Your task to perform on an android device: Open the calendar app, open the side menu, and click the "Day" option Image 0: 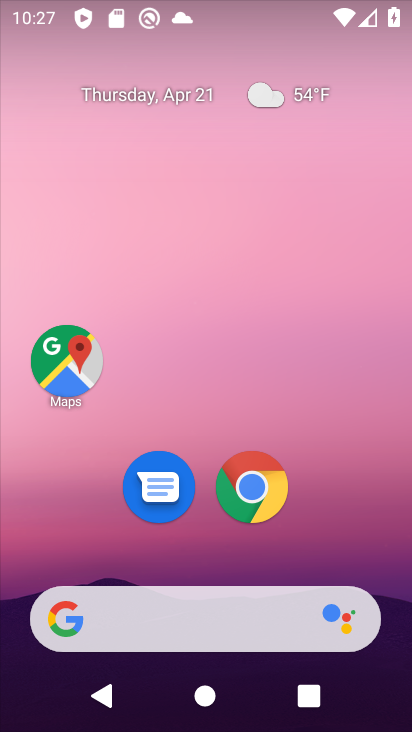
Step 0: drag from (388, 527) to (370, 181)
Your task to perform on an android device: Open the calendar app, open the side menu, and click the "Day" option Image 1: 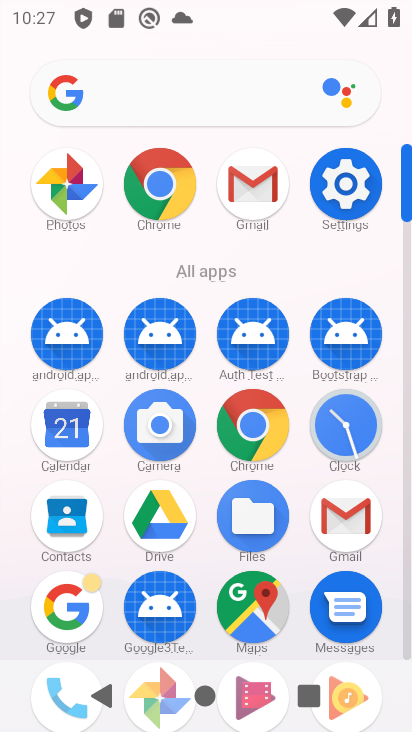
Step 1: click (74, 434)
Your task to perform on an android device: Open the calendar app, open the side menu, and click the "Day" option Image 2: 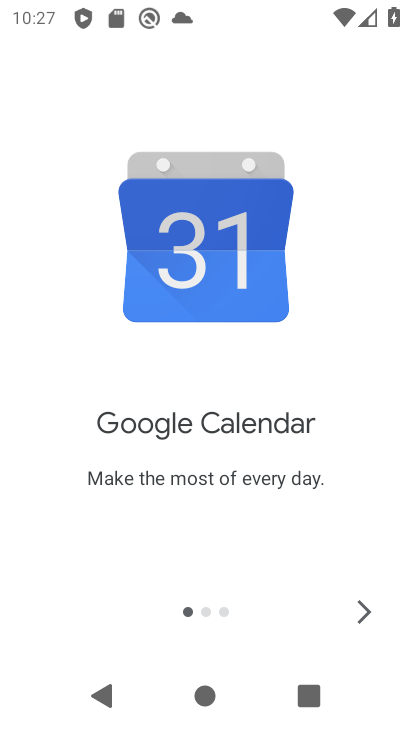
Step 2: click (370, 615)
Your task to perform on an android device: Open the calendar app, open the side menu, and click the "Day" option Image 3: 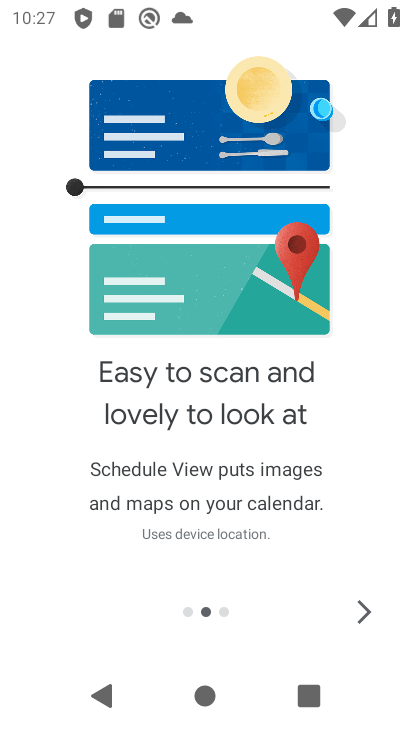
Step 3: click (369, 614)
Your task to perform on an android device: Open the calendar app, open the side menu, and click the "Day" option Image 4: 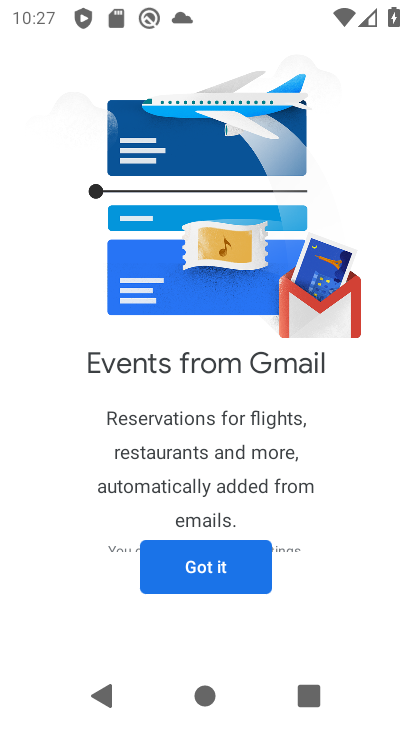
Step 4: click (208, 563)
Your task to perform on an android device: Open the calendar app, open the side menu, and click the "Day" option Image 5: 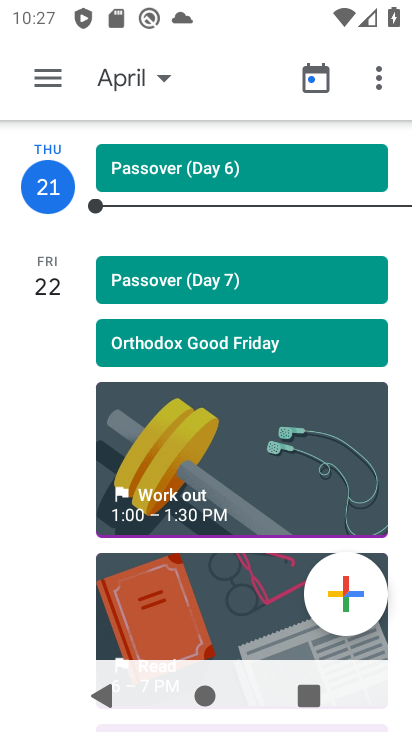
Step 5: click (42, 71)
Your task to perform on an android device: Open the calendar app, open the side menu, and click the "Day" option Image 6: 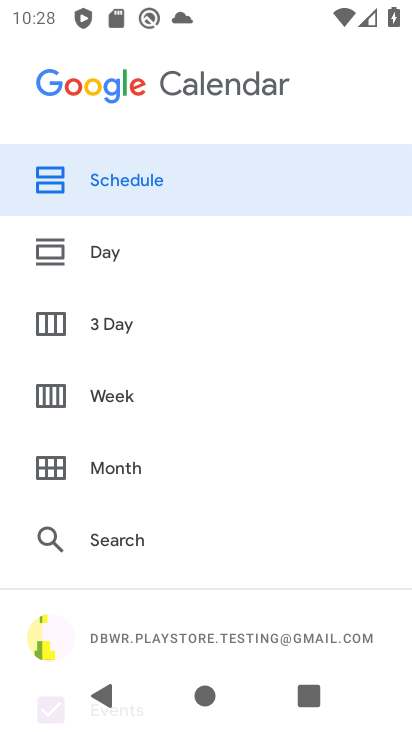
Step 6: click (86, 249)
Your task to perform on an android device: Open the calendar app, open the side menu, and click the "Day" option Image 7: 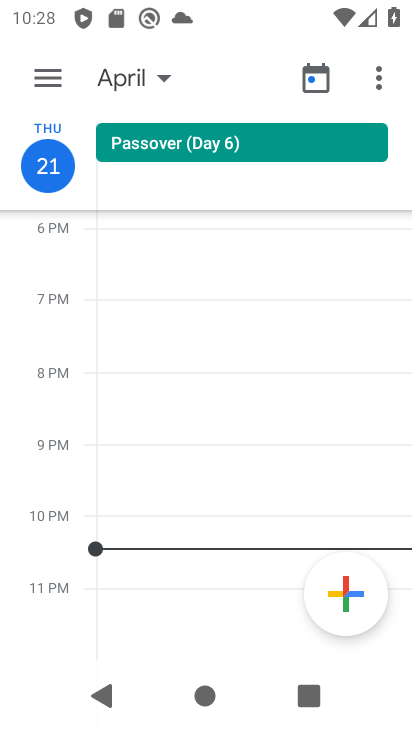
Step 7: task complete